Your task to perform on an android device: open app "VLC for Android" (install if not already installed) and enter user name: "Yves@outlook.com" and password: "internally" Image 0: 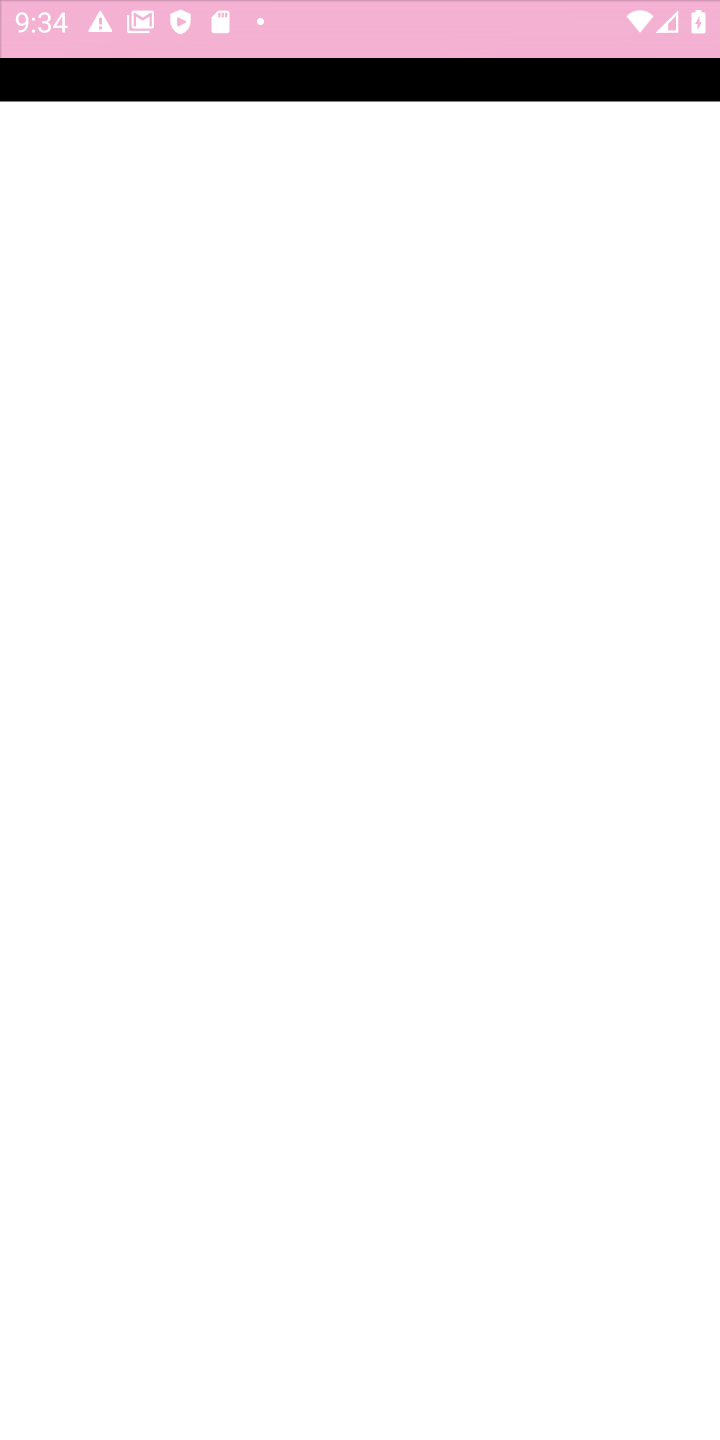
Step 0: press home button
Your task to perform on an android device: open app "VLC for Android" (install if not already installed) and enter user name: "Yves@outlook.com" and password: "internally" Image 1: 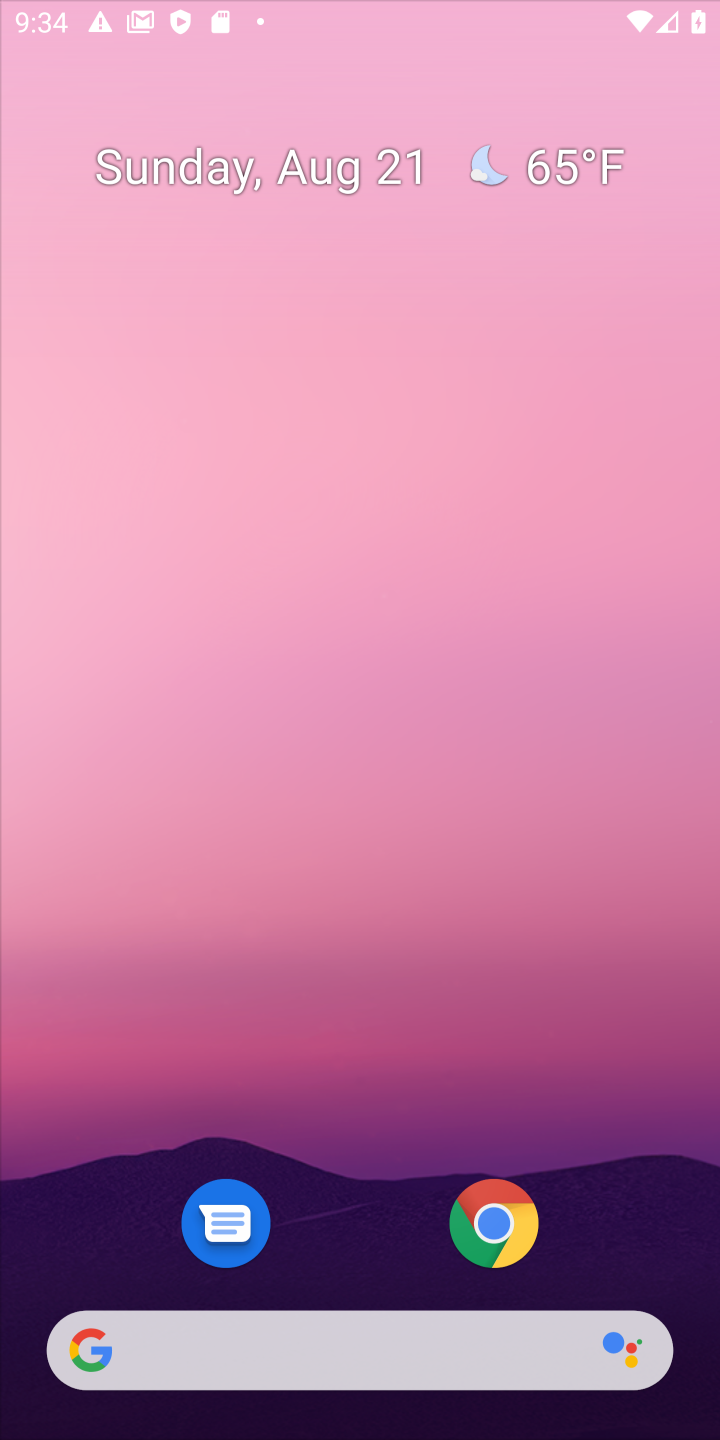
Step 1: press home button
Your task to perform on an android device: open app "VLC for Android" (install if not already installed) and enter user name: "Yves@outlook.com" and password: "internally" Image 2: 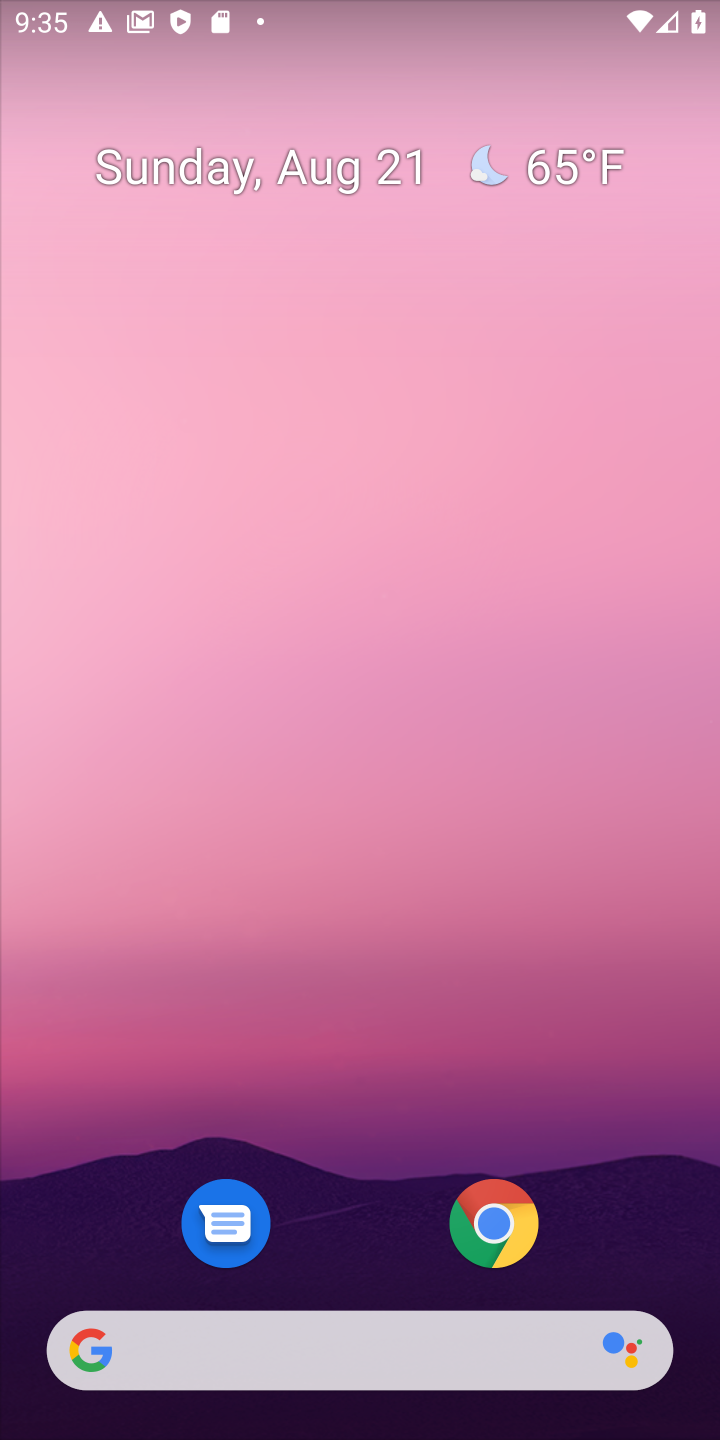
Step 2: drag from (632, 1242) to (684, 89)
Your task to perform on an android device: open app "VLC for Android" (install if not already installed) and enter user name: "Yves@outlook.com" and password: "internally" Image 3: 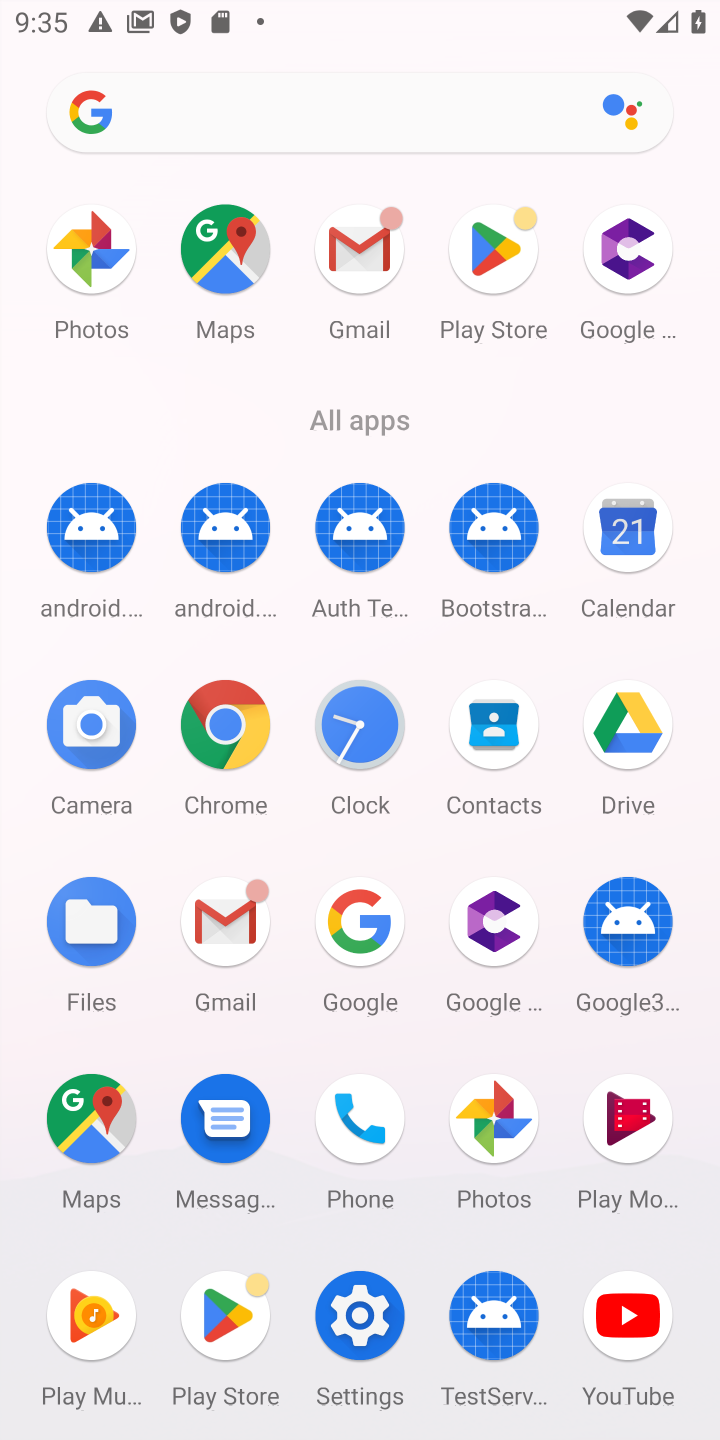
Step 3: click (496, 239)
Your task to perform on an android device: open app "VLC for Android" (install if not already installed) and enter user name: "Yves@outlook.com" and password: "internally" Image 4: 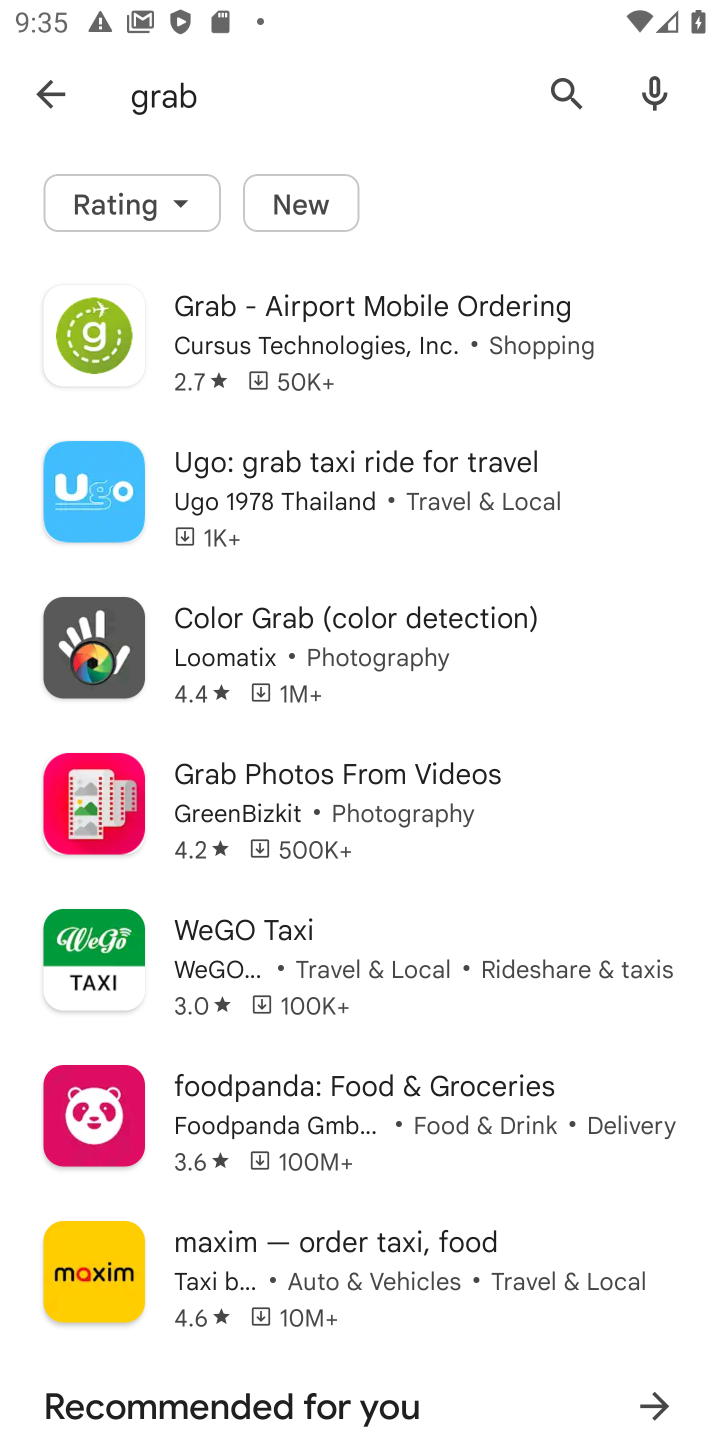
Step 4: press back button
Your task to perform on an android device: open app "VLC for Android" (install if not already installed) and enter user name: "Yves@outlook.com" and password: "internally" Image 5: 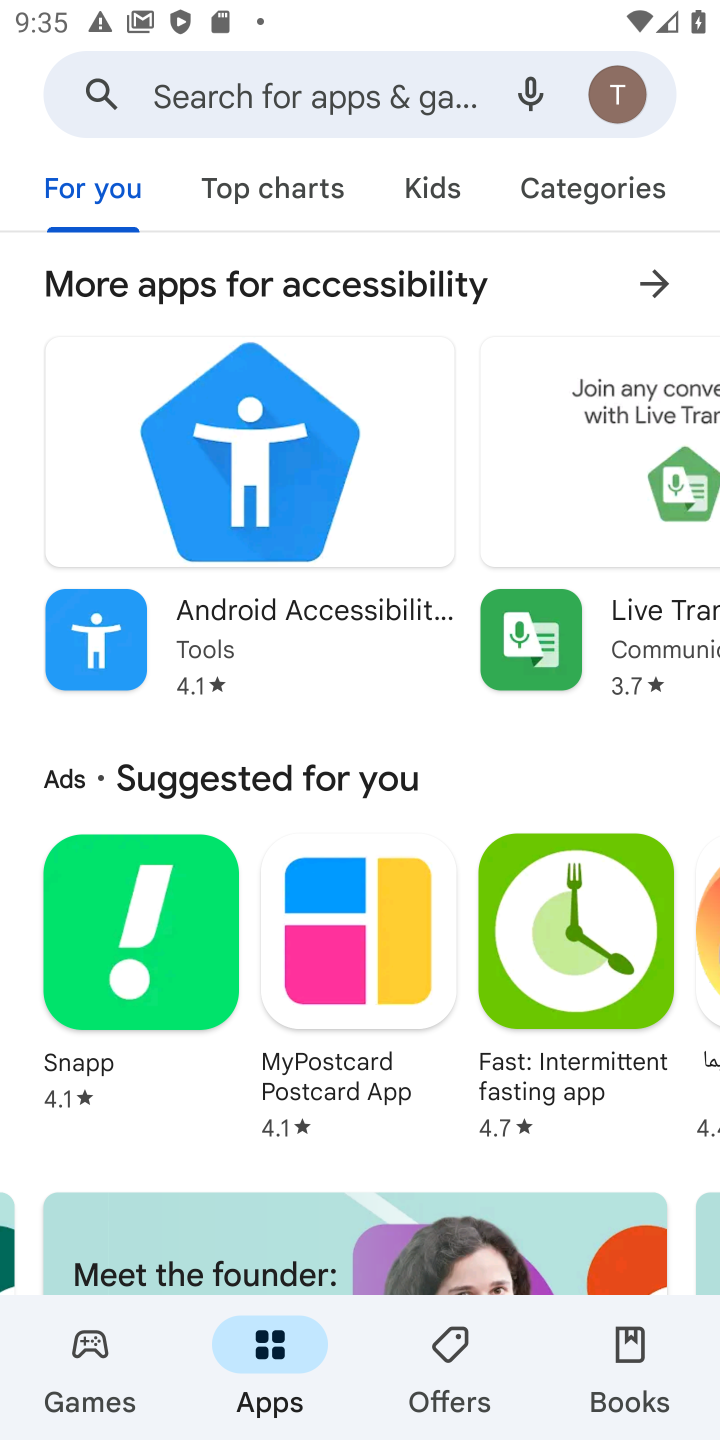
Step 5: click (366, 80)
Your task to perform on an android device: open app "VLC for Android" (install if not already installed) and enter user name: "Yves@outlook.com" and password: "internally" Image 6: 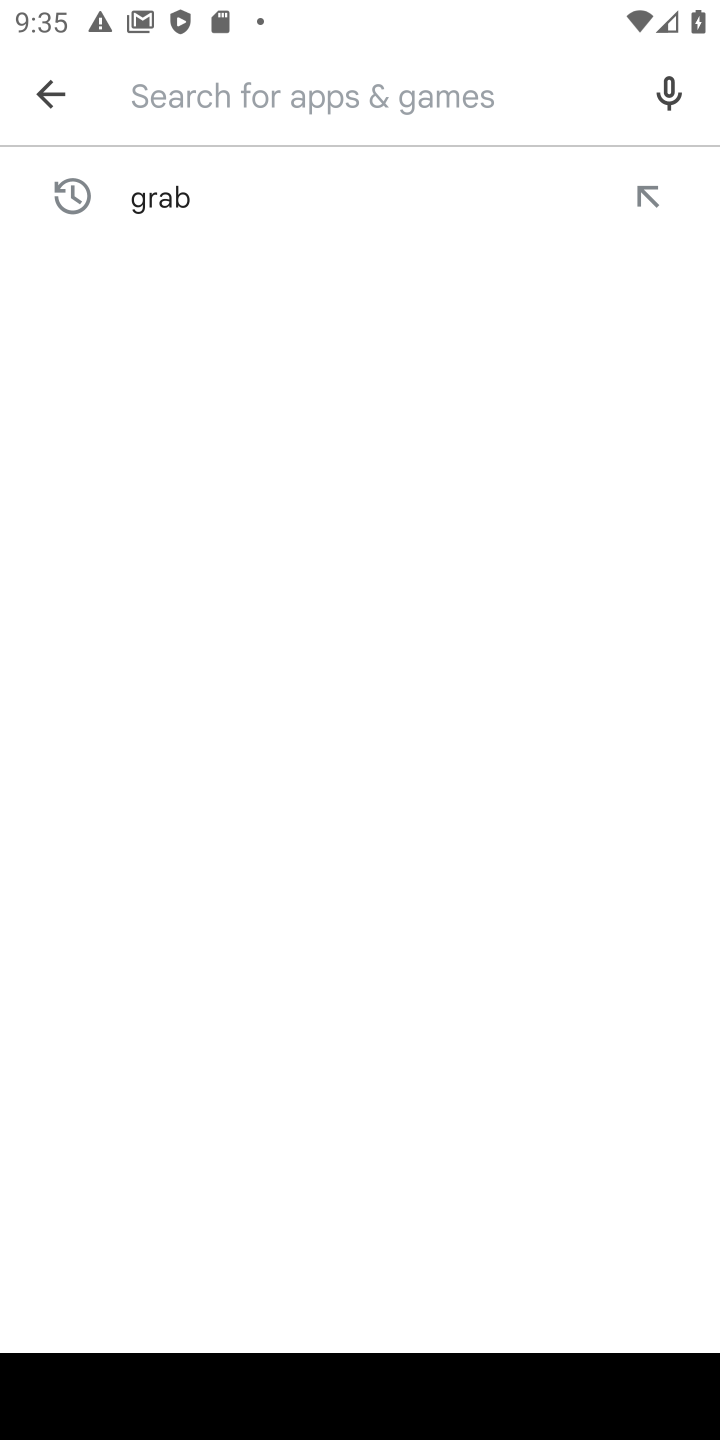
Step 6: press enter
Your task to perform on an android device: open app "VLC for Android" (install if not already installed) and enter user name: "Yves@outlook.com" and password: "internally" Image 7: 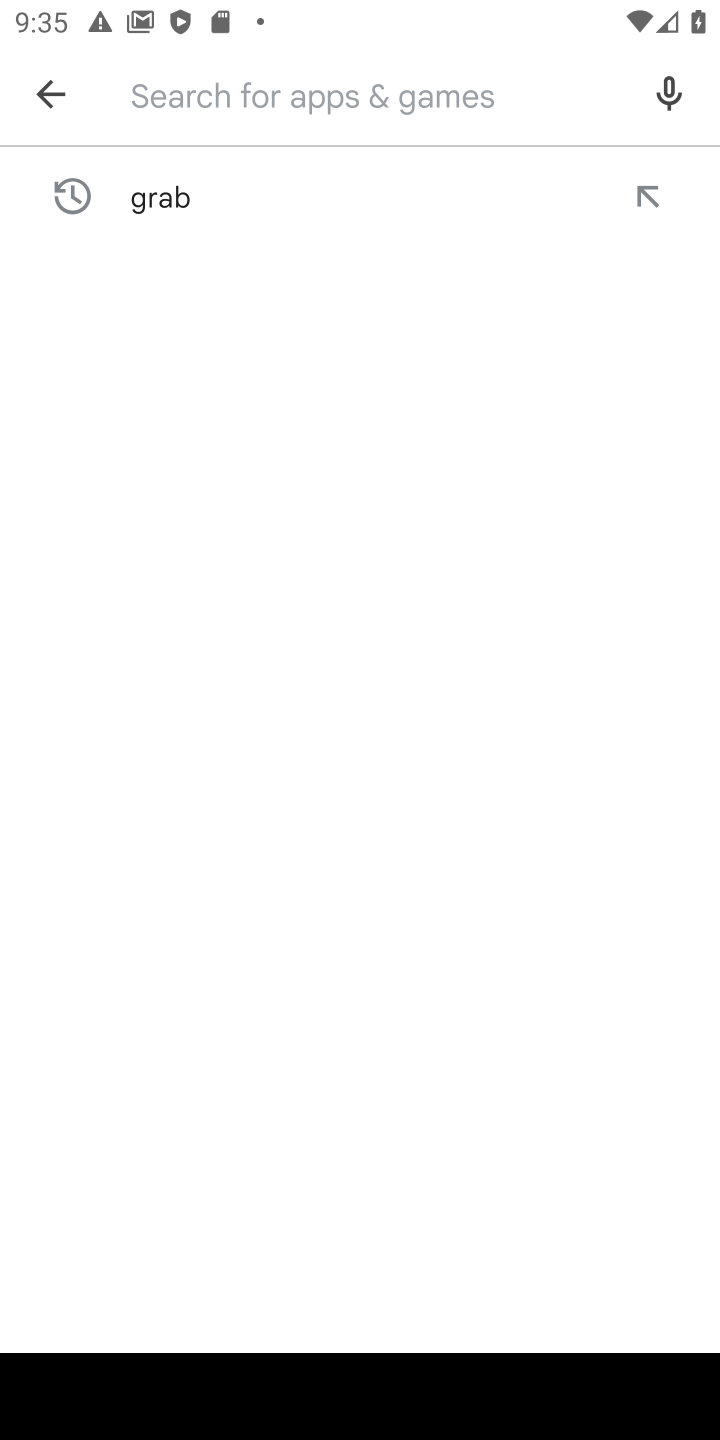
Step 7: type "VLC for Android"
Your task to perform on an android device: open app "VLC for Android" (install if not already installed) and enter user name: "Yves@outlook.com" and password: "internally" Image 8: 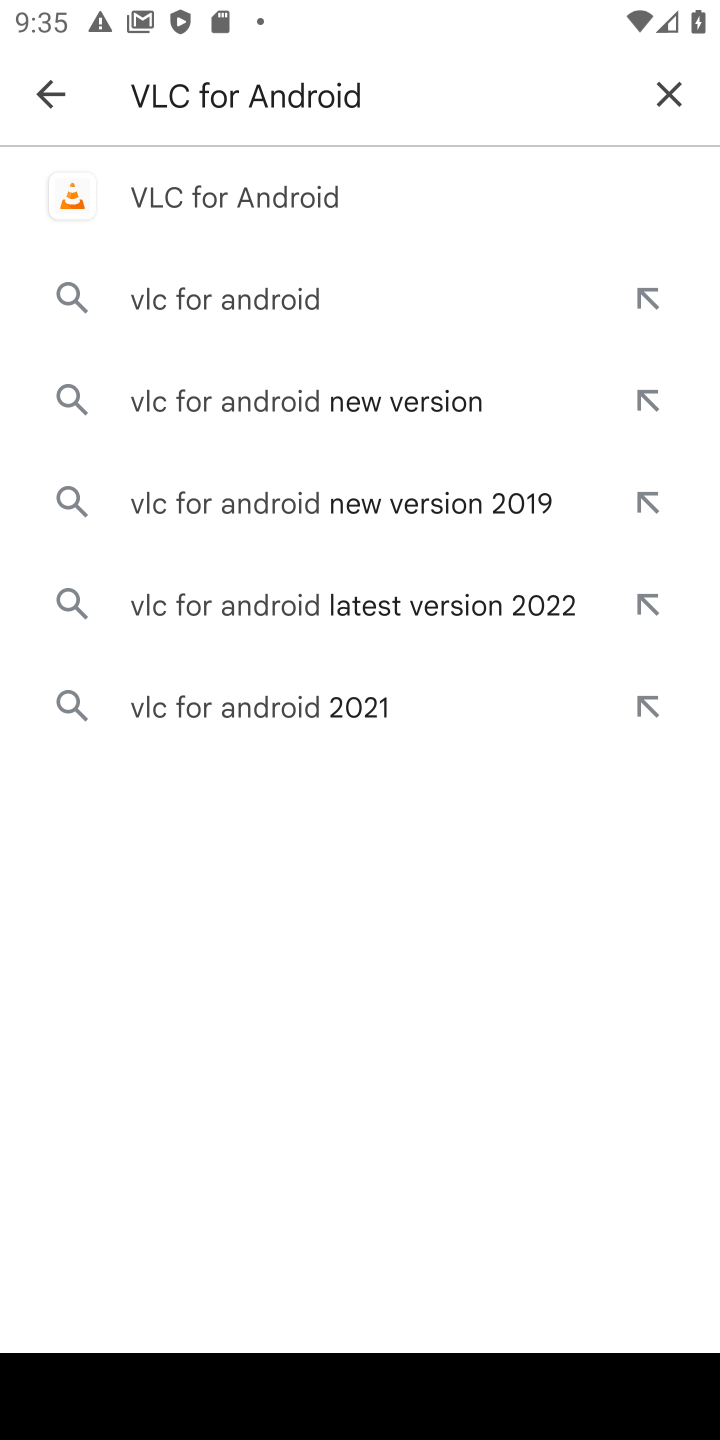
Step 8: click (335, 199)
Your task to perform on an android device: open app "VLC for Android" (install if not already installed) and enter user name: "Yves@outlook.com" and password: "internally" Image 9: 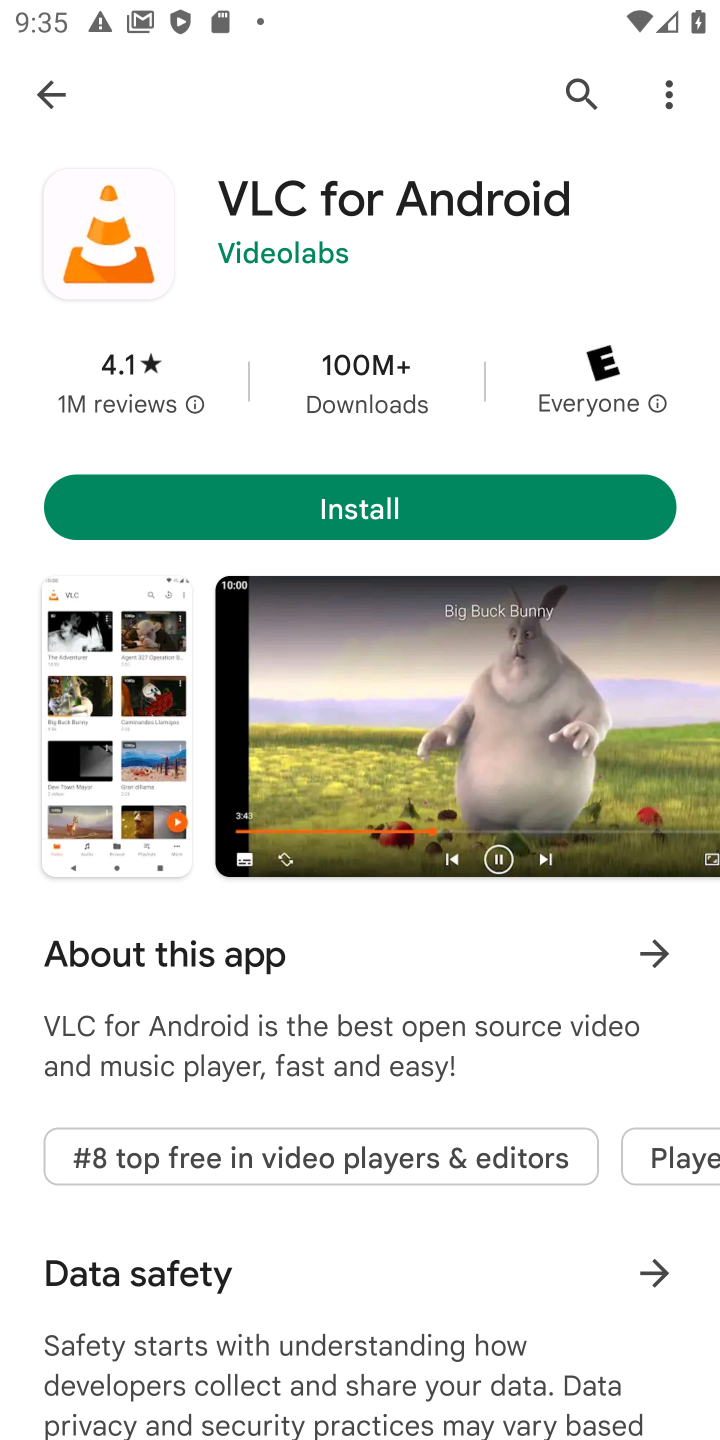
Step 9: click (481, 493)
Your task to perform on an android device: open app "VLC for Android" (install if not already installed) and enter user name: "Yves@outlook.com" and password: "internally" Image 10: 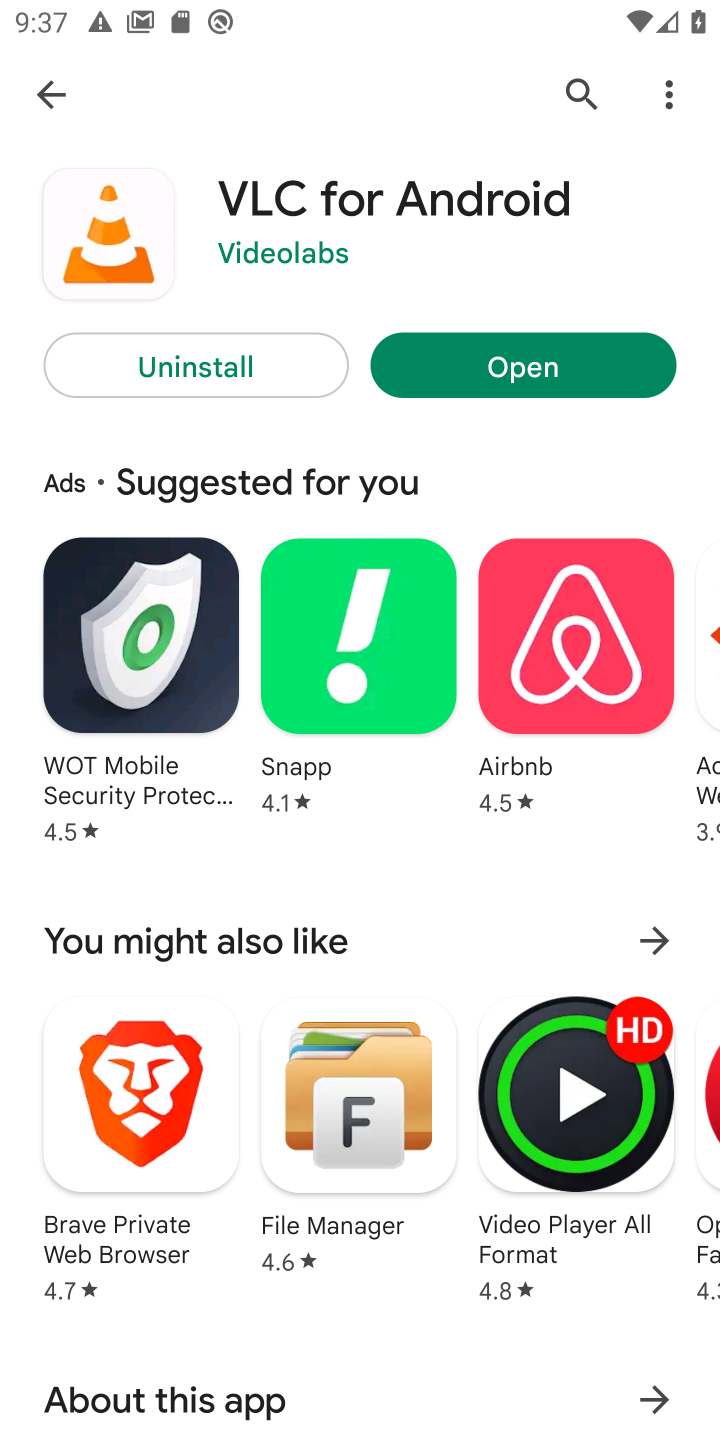
Step 10: click (515, 375)
Your task to perform on an android device: open app "VLC for Android" (install if not already installed) and enter user name: "Yves@outlook.com" and password: "internally" Image 11: 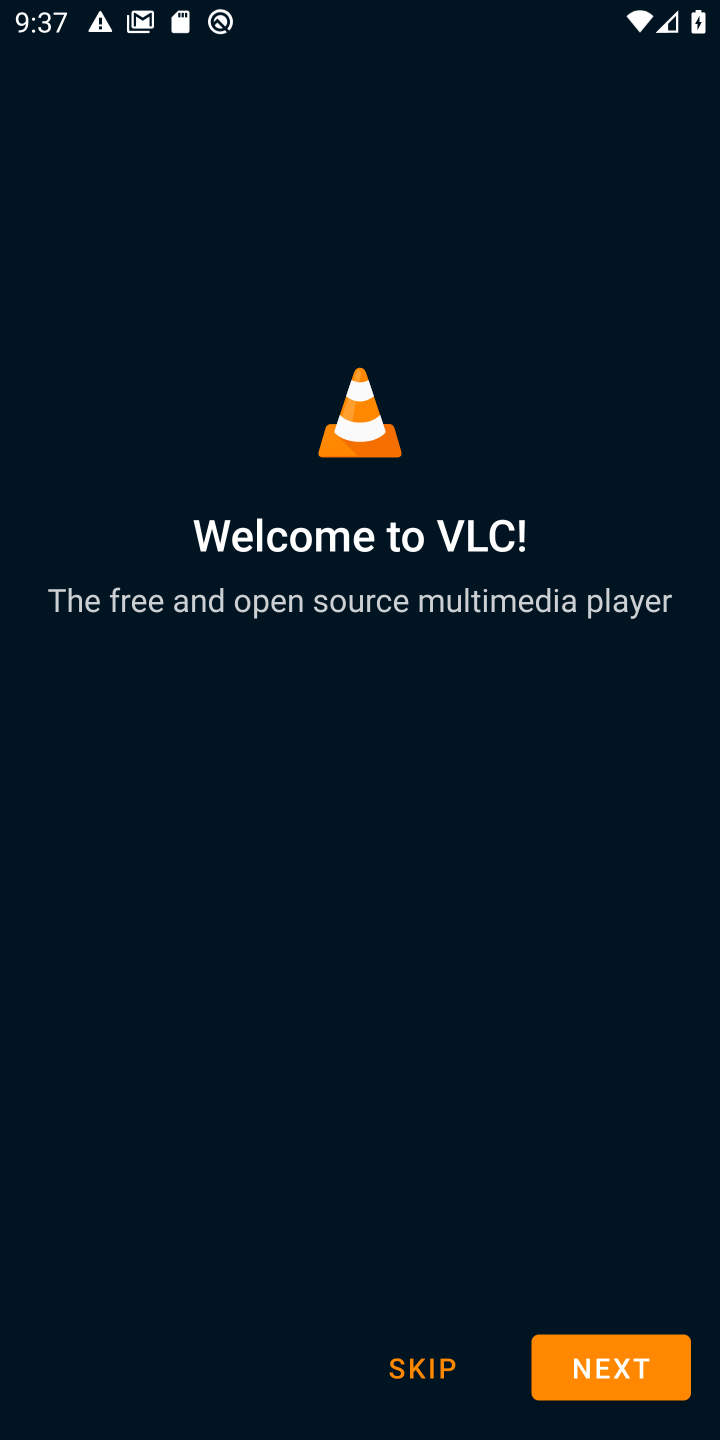
Step 11: click (668, 1361)
Your task to perform on an android device: open app "VLC for Android" (install if not already installed) and enter user name: "Yves@outlook.com" and password: "internally" Image 12: 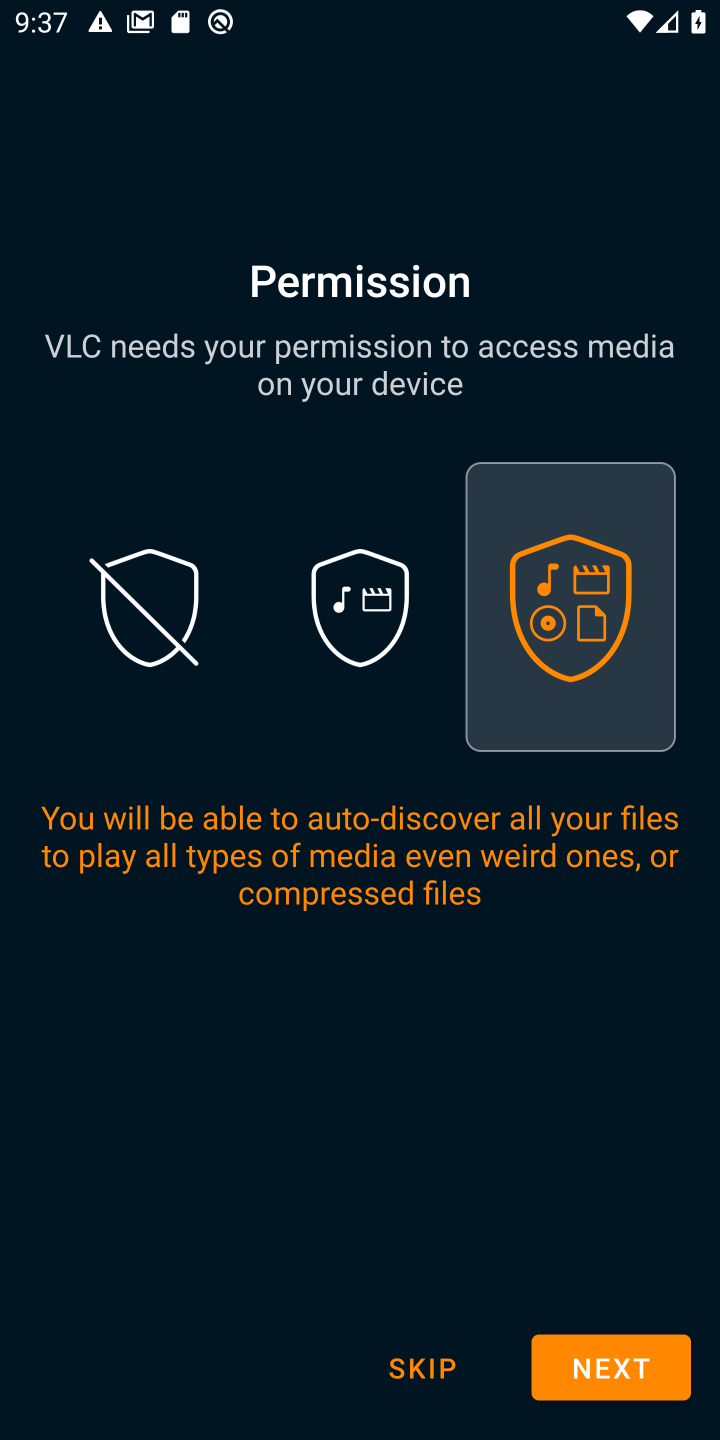
Step 12: click (633, 1359)
Your task to perform on an android device: open app "VLC for Android" (install if not already installed) and enter user name: "Yves@outlook.com" and password: "internally" Image 13: 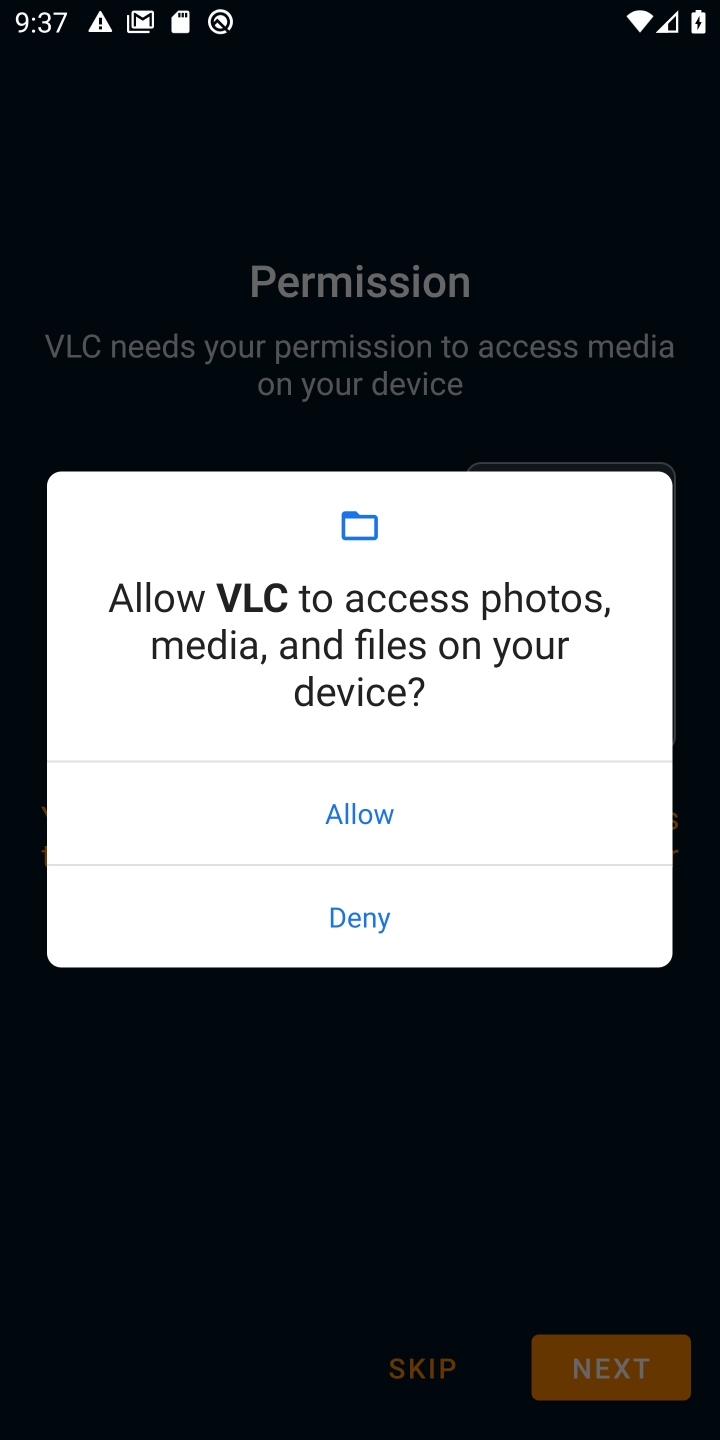
Step 13: click (481, 801)
Your task to perform on an android device: open app "VLC for Android" (install if not already installed) and enter user name: "Yves@outlook.com" and password: "internally" Image 14: 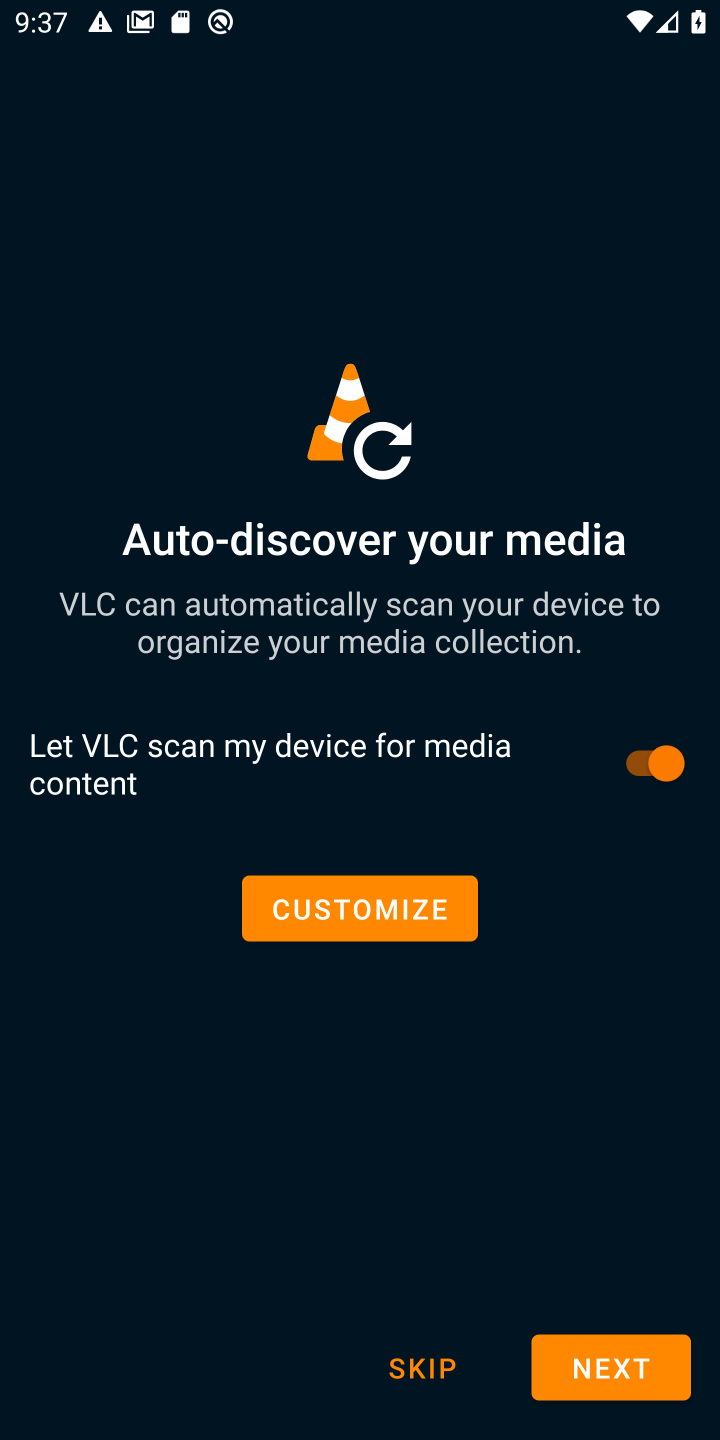
Step 14: click (440, 919)
Your task to perform on an android device: open app "VLC for Android" (install if not already installed) and enter user name: "Yves@outlook.com" and password: "internally" Image 15: 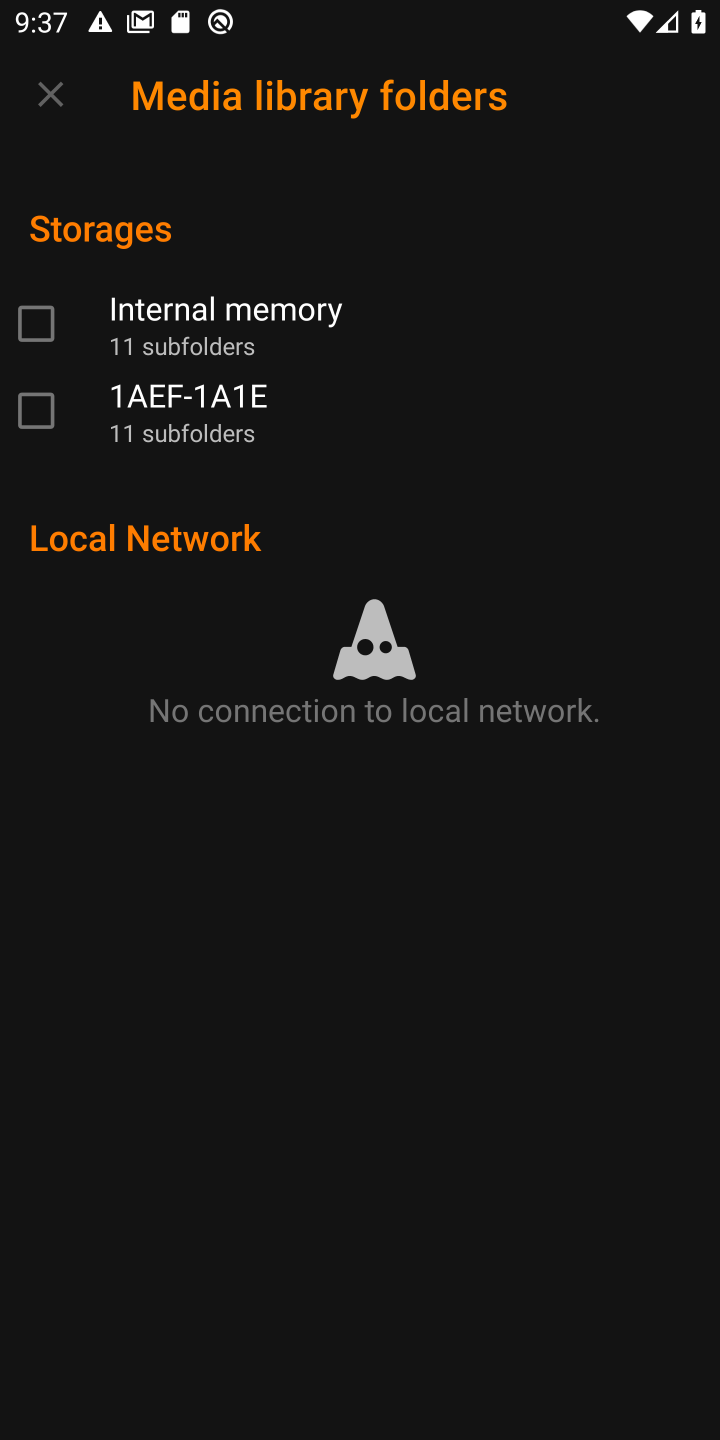
Step 15: click (54, 94)
Your task to perform on an android device: open app "VLC for Android" (install if not already installed) and enter user name: "Yves@outlook.com" and password: "internally" Image 16: 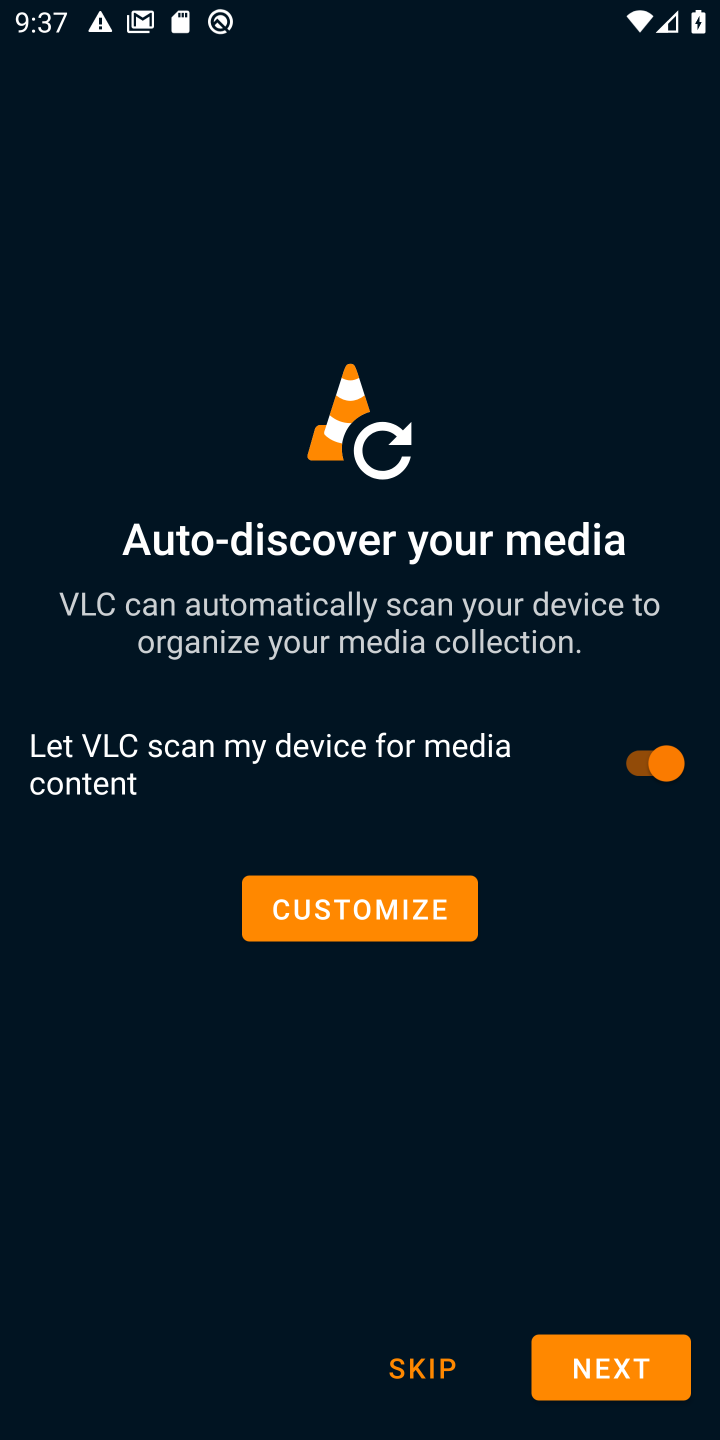
Step 16: click (598, 1374)
Your task to perform on an android device: open app "VLC for Android" (install if not already installed) and enter user name: "Yves@outlook.com" and password: "internally" Image 17: 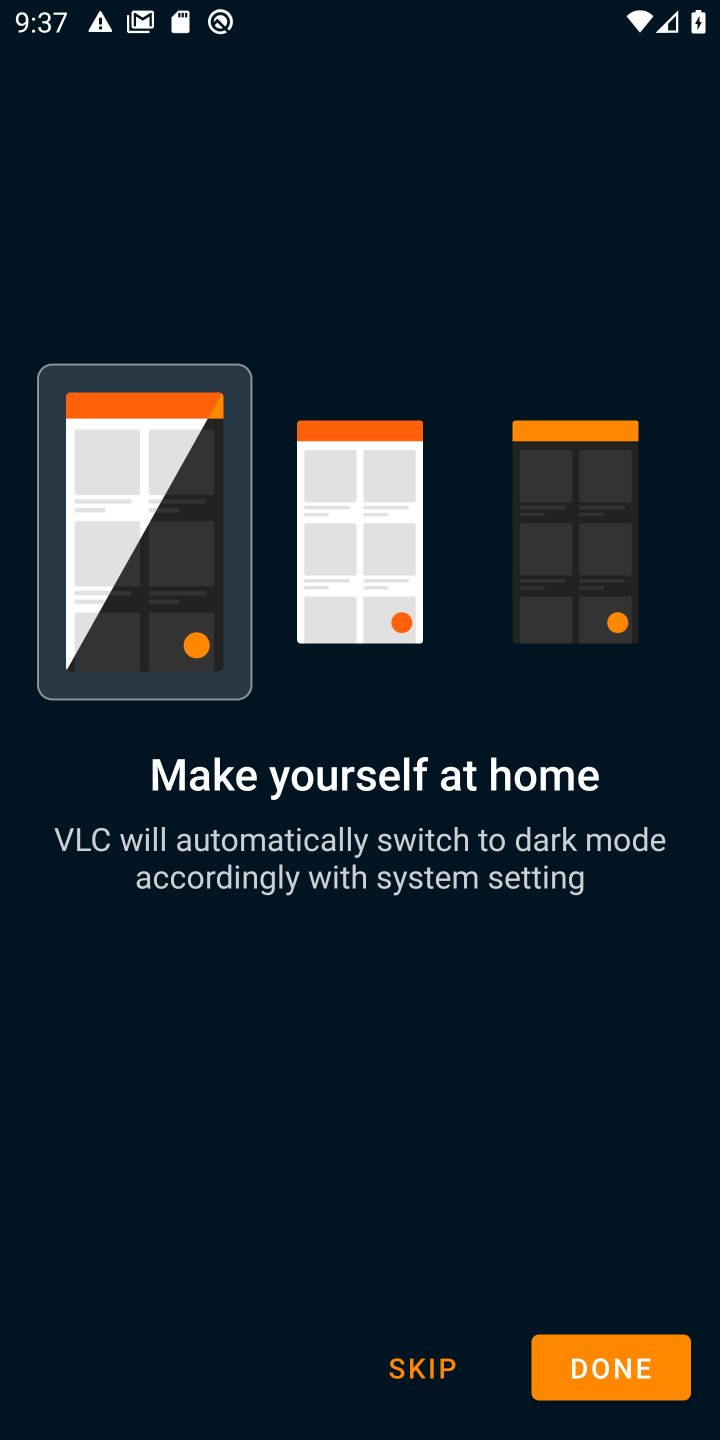
Step 17: click (625, 1358)
Your task to perform on an android device: open app "VLC for Android" (install if not already installed) and enter user name: "Yves@outlook.com" and password: "internally" Image 18: 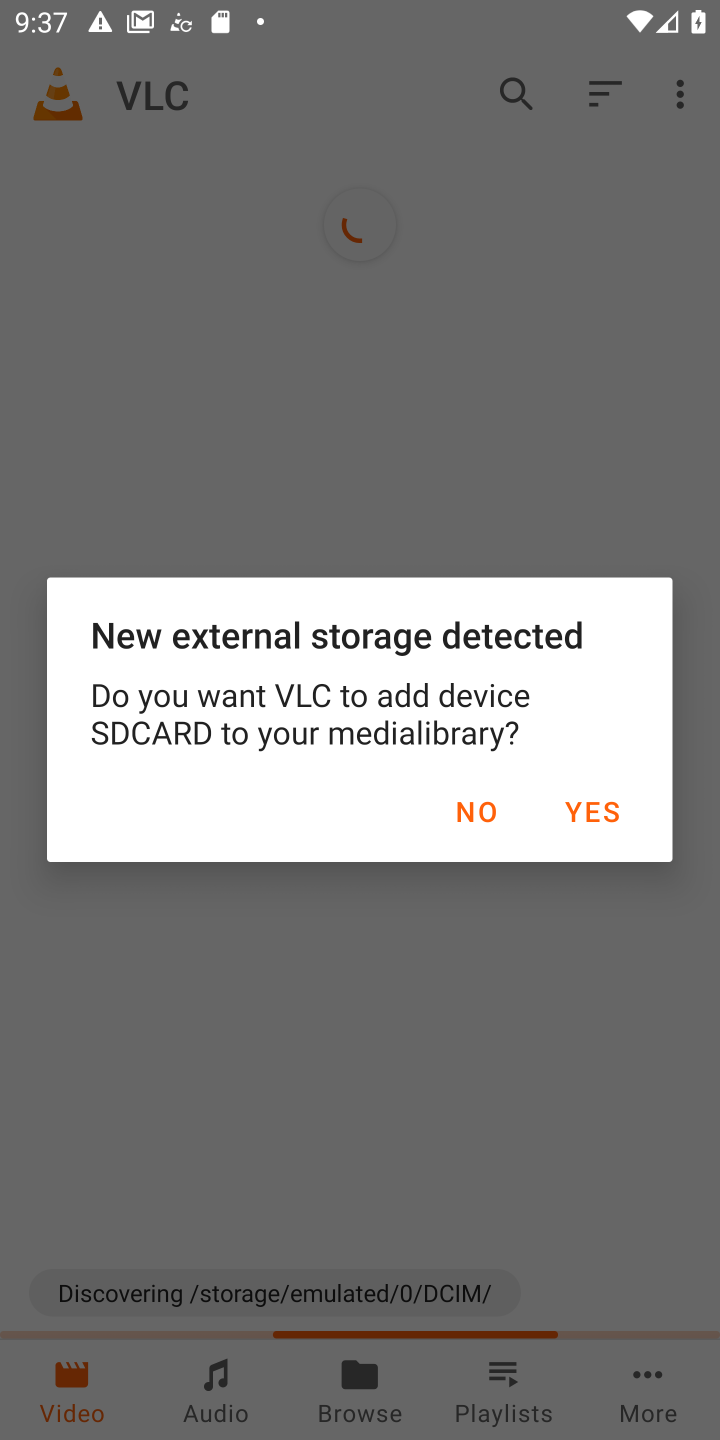
Step 18: click (480, 811)
Your task to perform on an android device: open app "VLC for Android" (install if not already installed) and enter user name: "Yves@outlook.com" and password: "internally" Image 19: 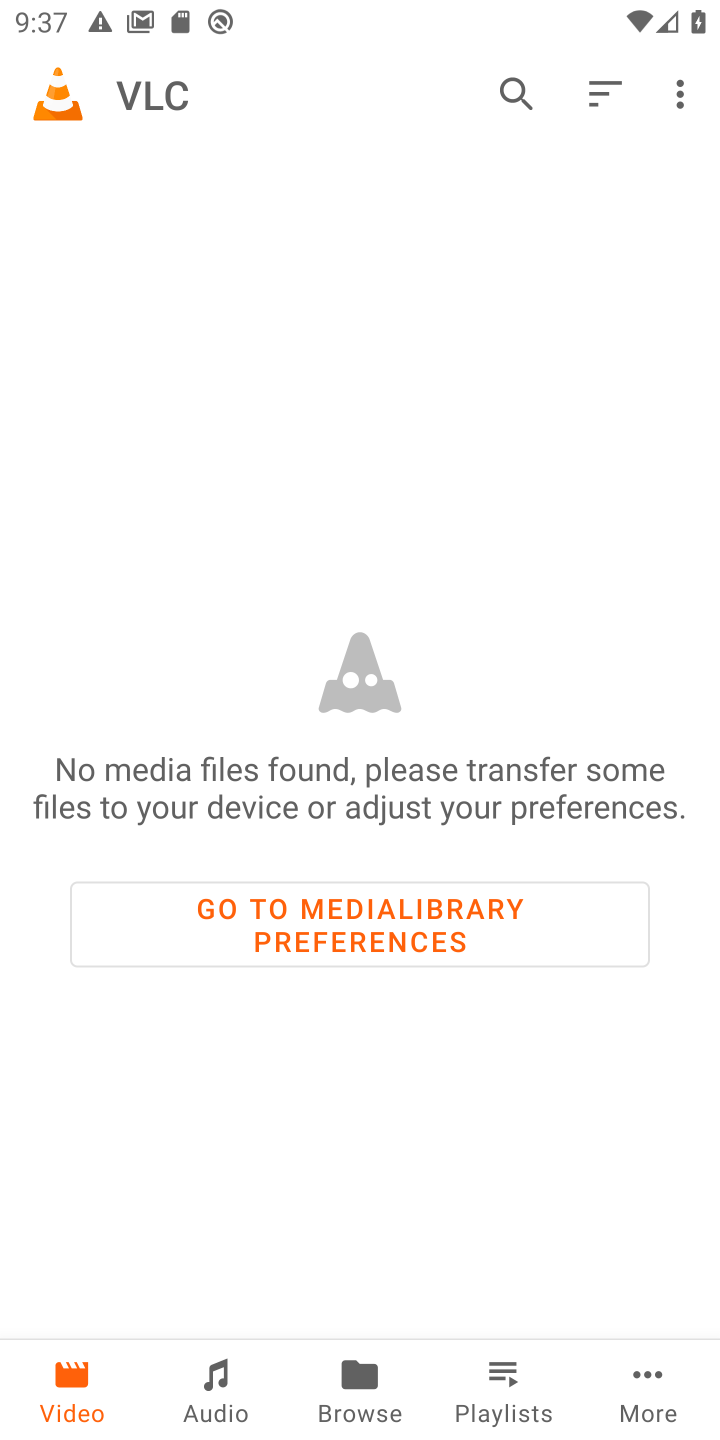
Step 19: click (685, 93)
Your task to perform on an android device: open app "VLC for Android" (install if not already installed) and enter user name: "Yves@outlook.com" and password: "internally" Image 20: 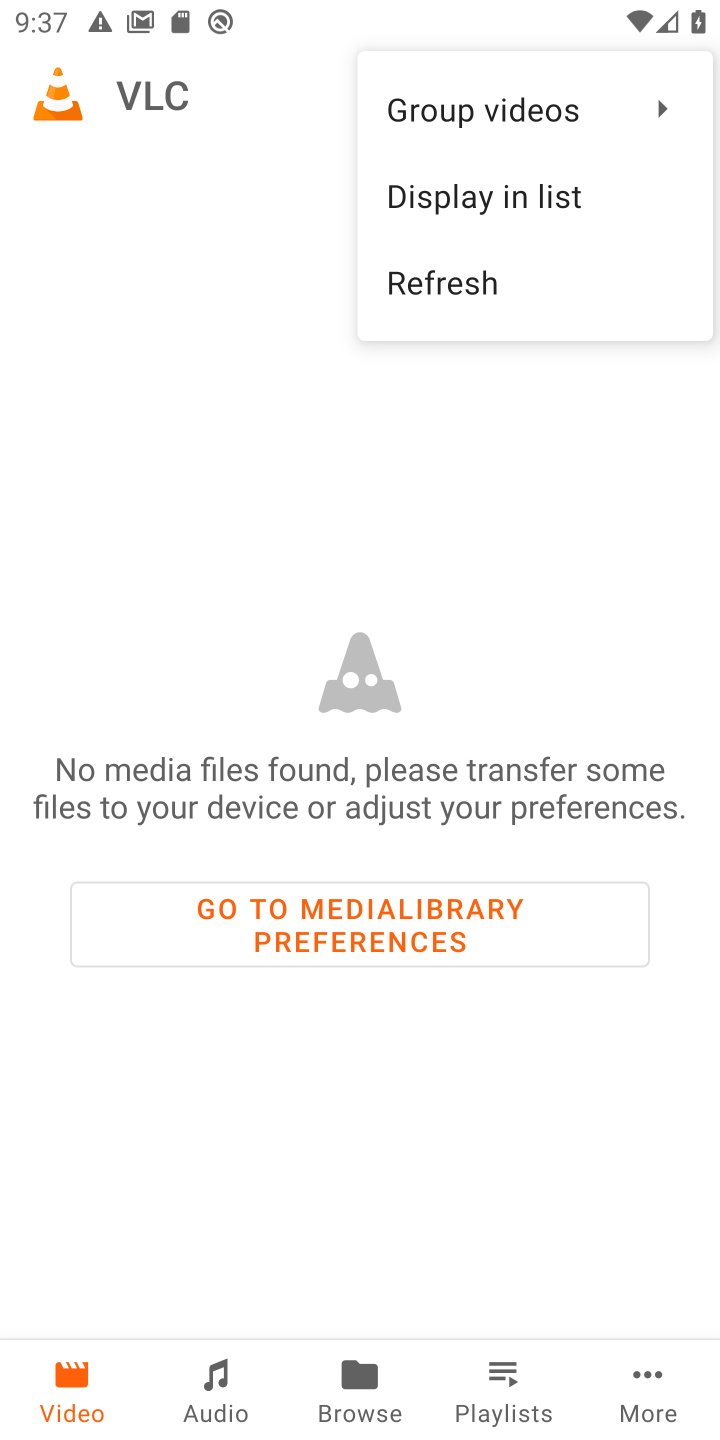
Step 20: click (196, 337)
Your task to perform on an android device: open app "VLC for Android" (install if not already installed) and enter user name: "Yves@outlook.com" and password: "internally" Image 21: 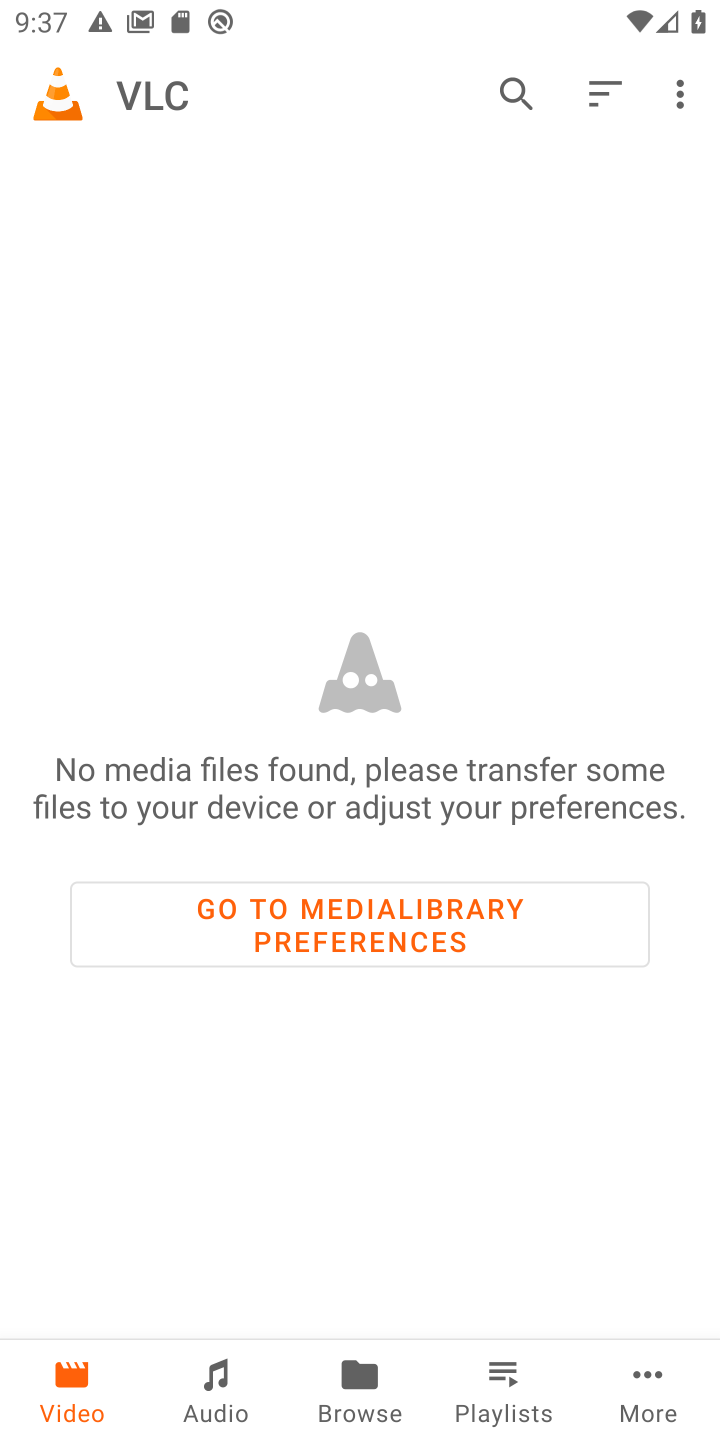
Step 21: click (647, 1392)
Your task to perform on an android device: open app "VLC for Android" (install if not already installed) and enter user name: "Yves@outlook.com" and password: "internally" Image 22: 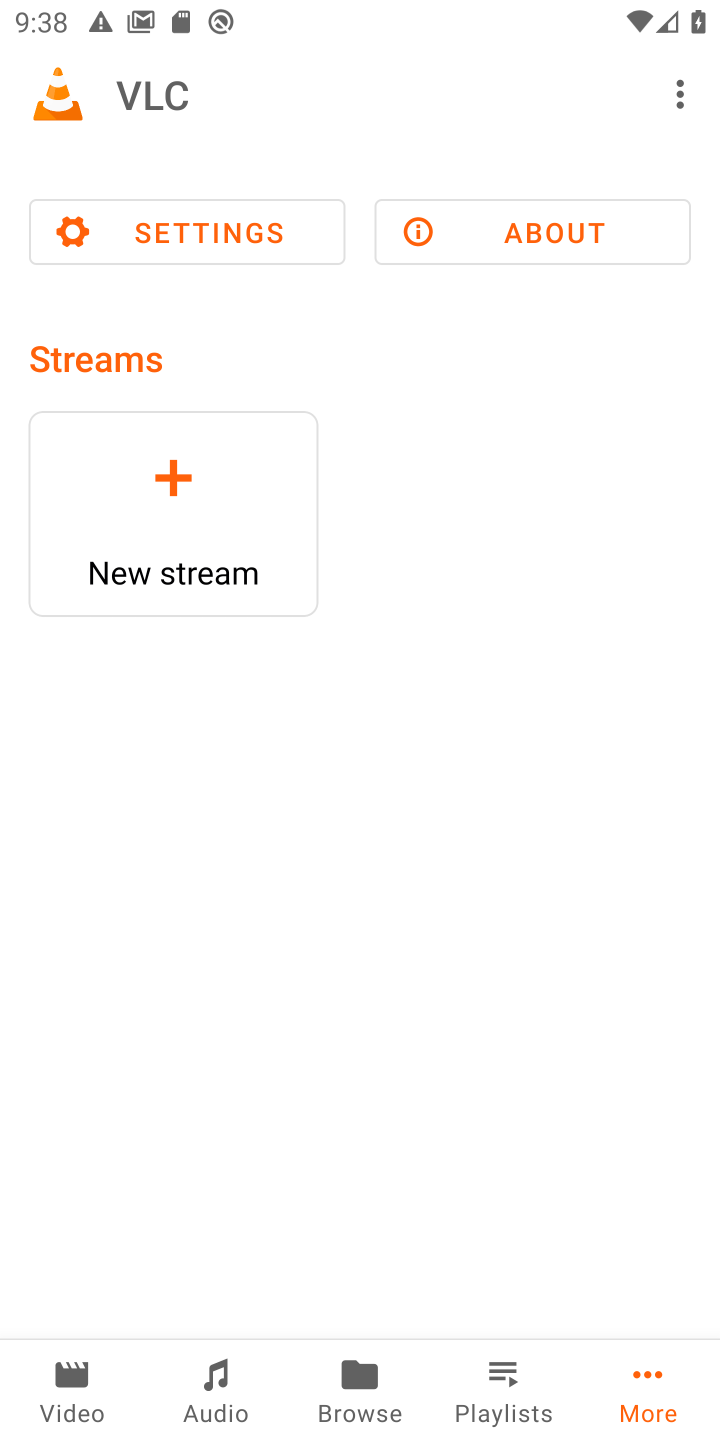
Step 22: click (65, 102)
Your task to perform on an android device: open app "VLC for Android" (install if not already installed) and enter user name: "Yves@outlook.com" and password: "internally" Image 23: 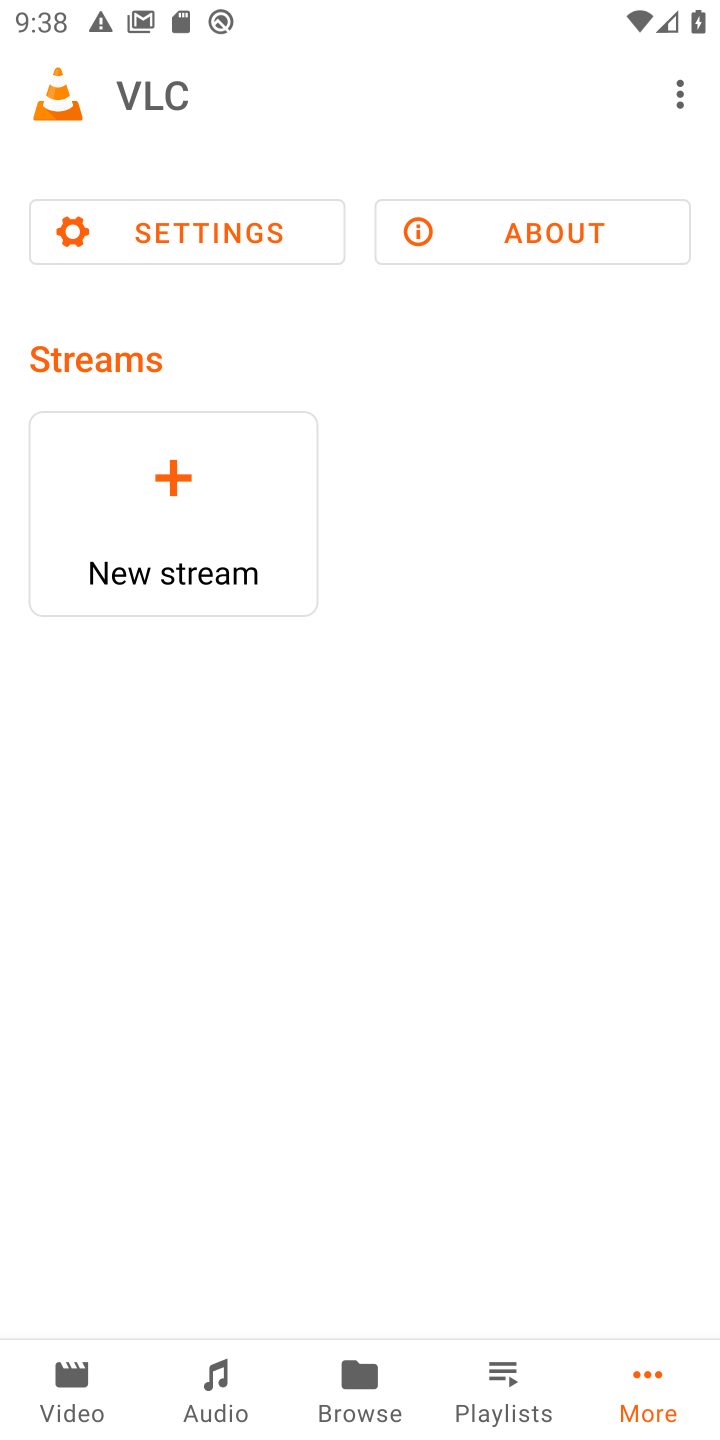
Step 23: task complete